Your task to perform on an android device: Show me productivity apps on the Play Store Image 0: 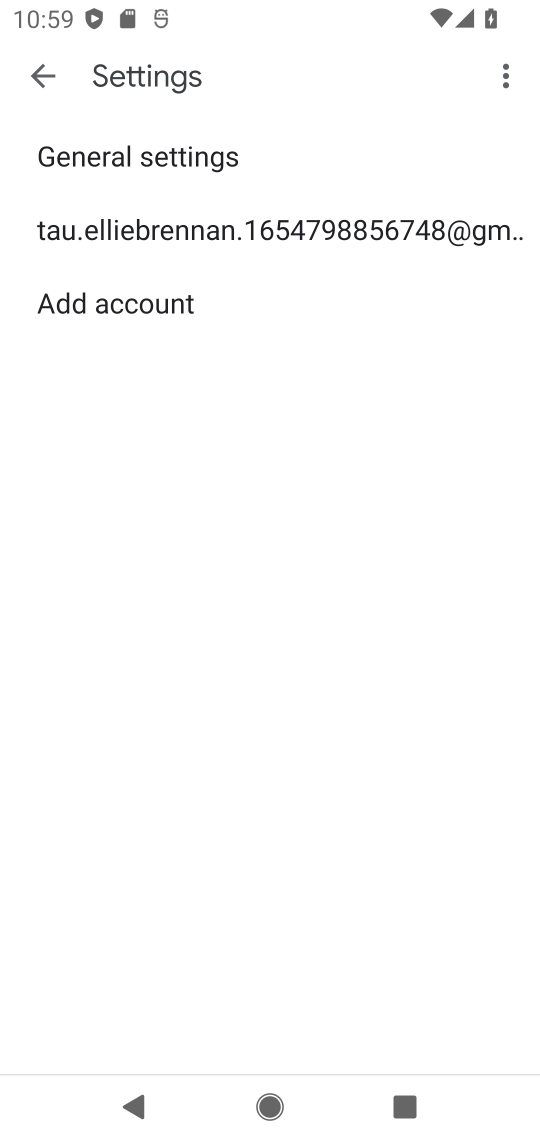
Step 0: press home button
Your task to perform on an android device: Show me productivity apps on the Play Store Image 1: 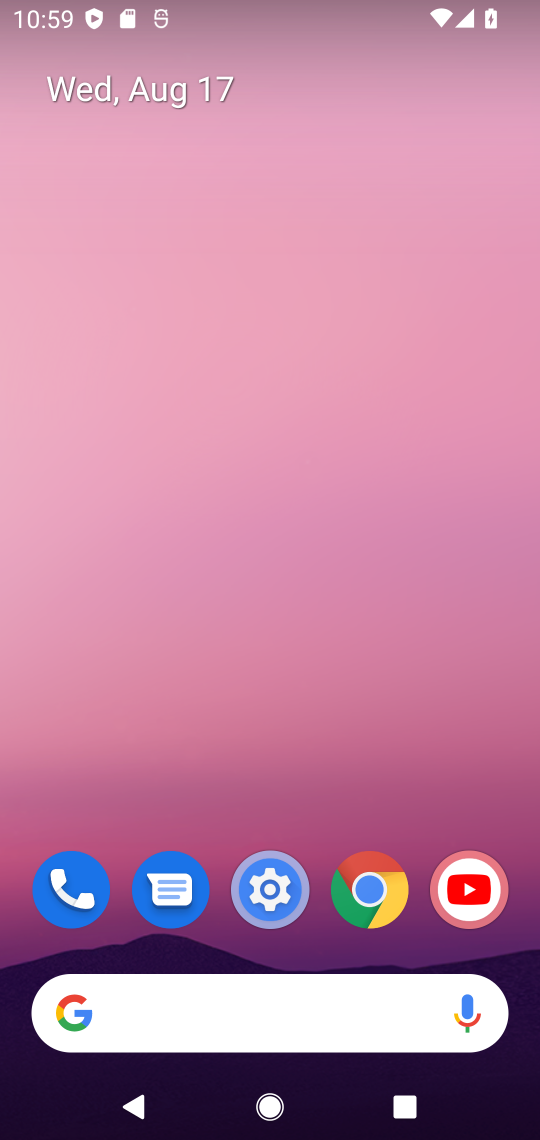
Step 1: drag from (321, 752) to (372, 2)
Your task to perform on an android device: Show me productivity apps on the Play Store Image 2: 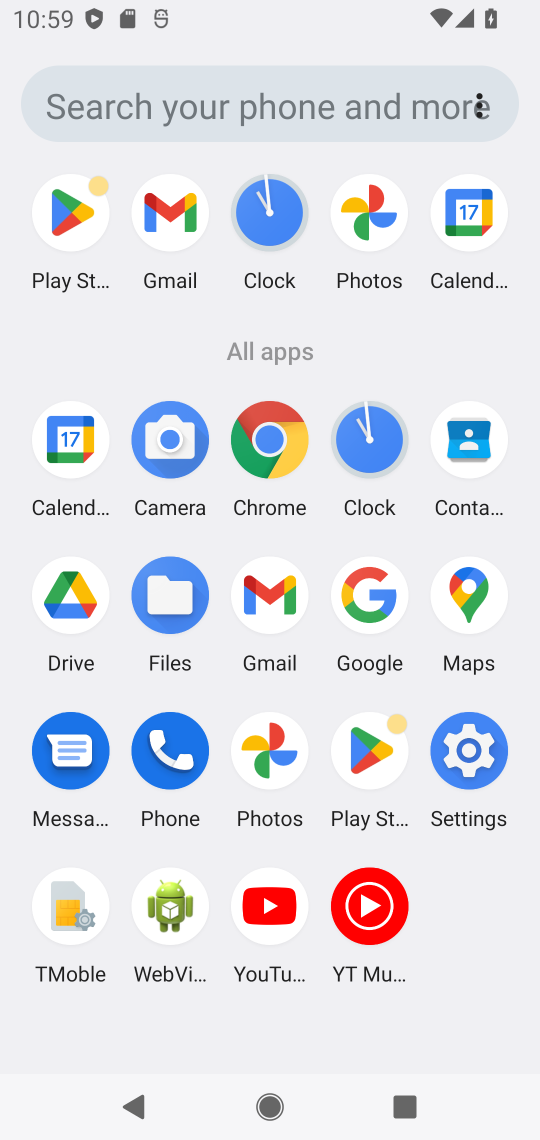
Step 2: click (361, 743)
Your task to perform on an android device: Show me productivity apps on the Play Store Image 3: 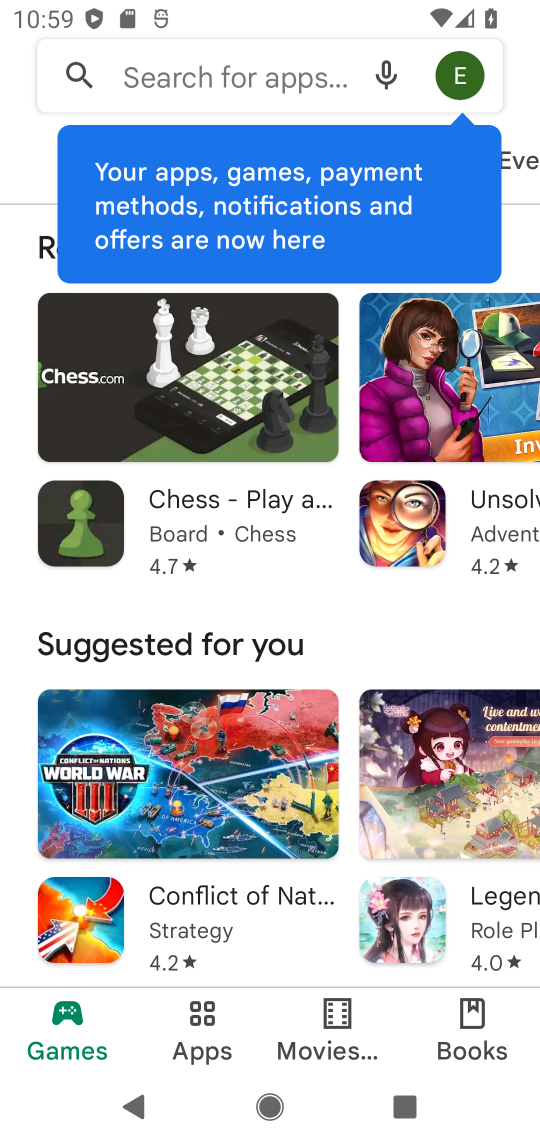
Step 3: click (195, 1019)
Your task to perform on an android device: Show me productivity apps on the Play Store Image 4: 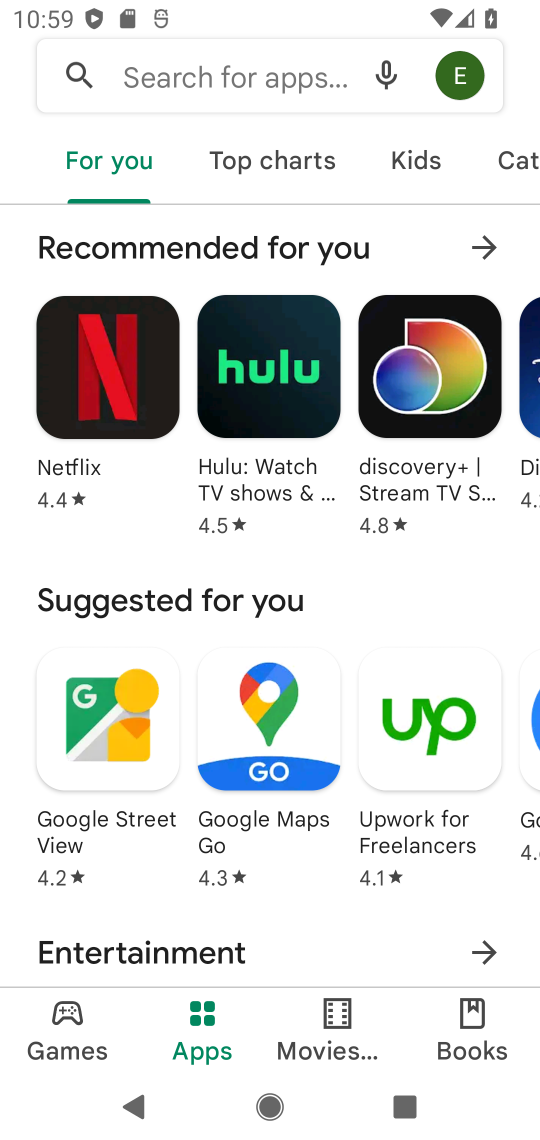
Step 4: click (516, 160)
Your task to perform on an android device: Show me productivity apps on the Play Store Image 5: 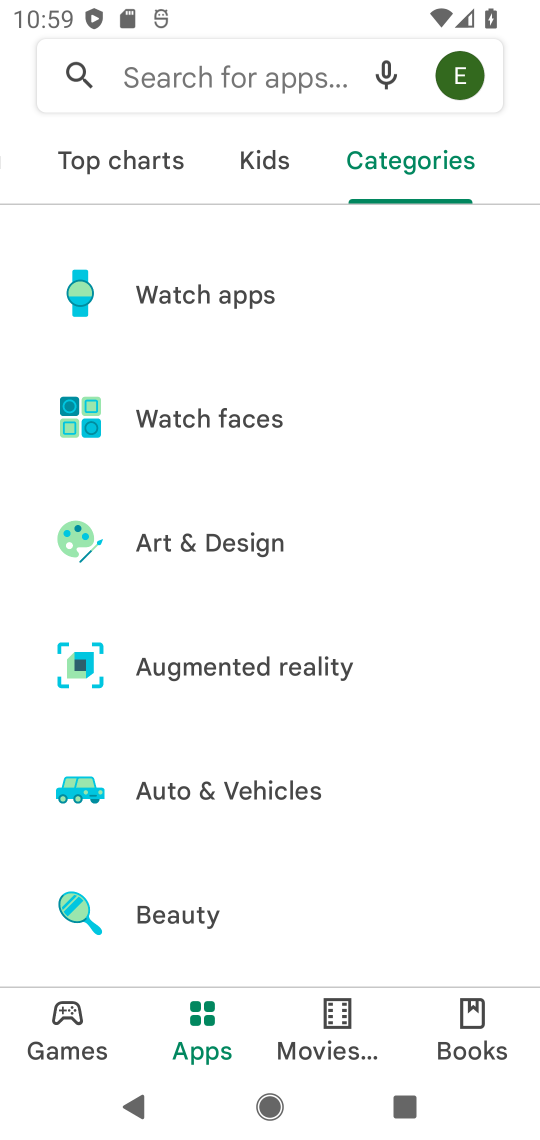
Step 5: drag from (317, 837) to (372, 5)
Your task to perform on an android device: Show me productivity apps on the Play Store Image 6: 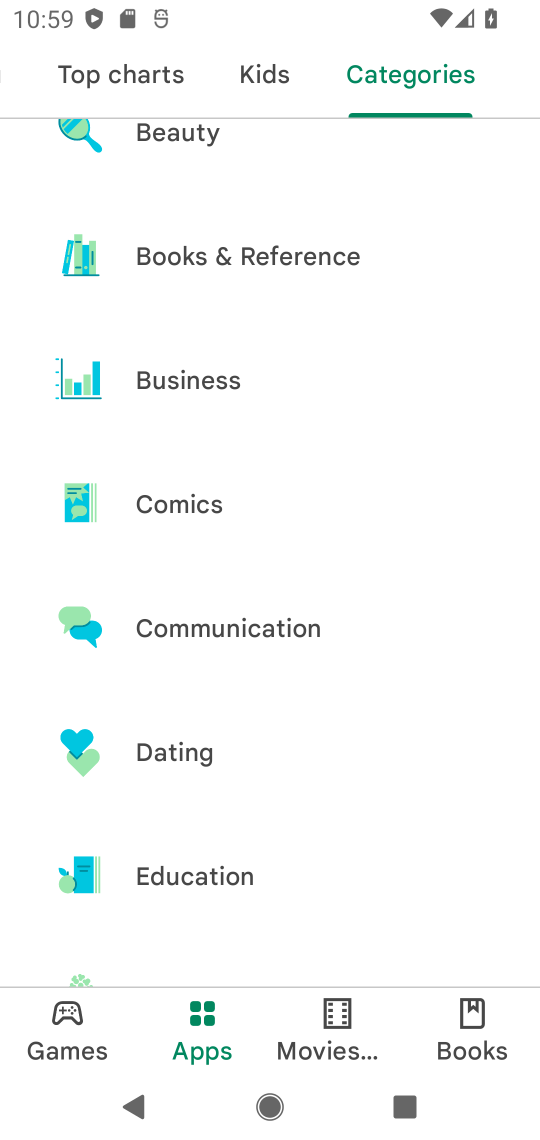
Step 6: drag from (335, 804) to (371, 2)
Your task to perform on an android device: Show me productivity apps on the Play Store Image 7: 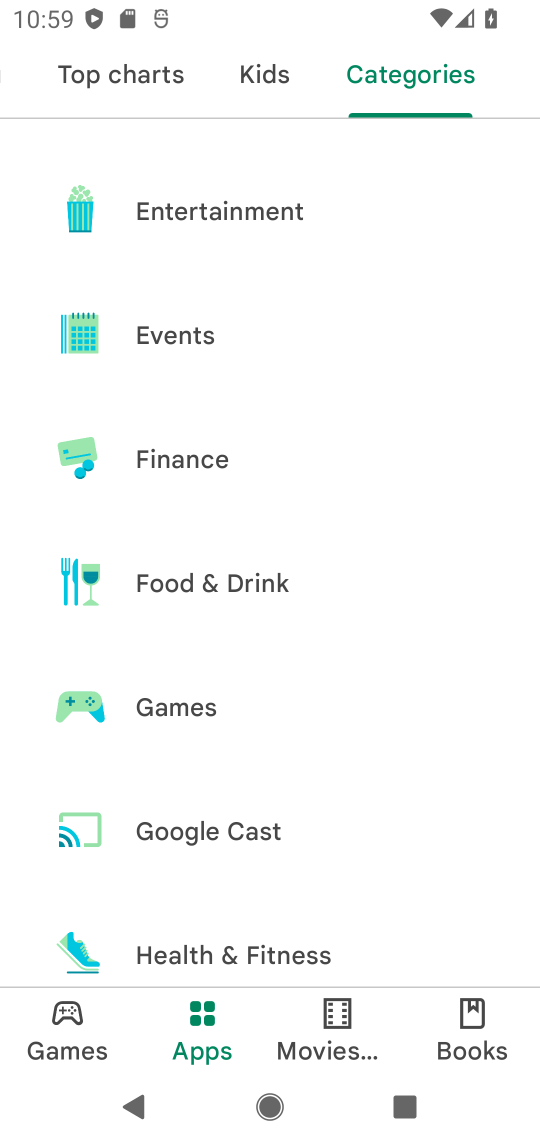
Step 7: drag from (339, 909) to (355, 1)
Your task to perform on an android device: Show me productivity apps on the Play Store Image 8: 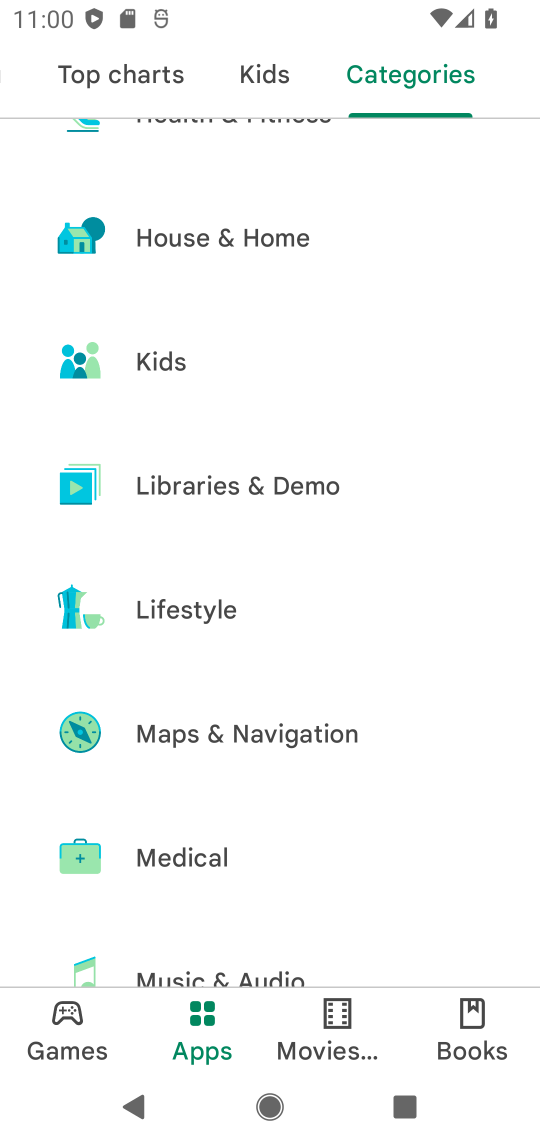
Step 8: drag from (286, 901) to (325, 1)
Your task to perform on an android device: Show me productivity apps on the Play Store Image 9: 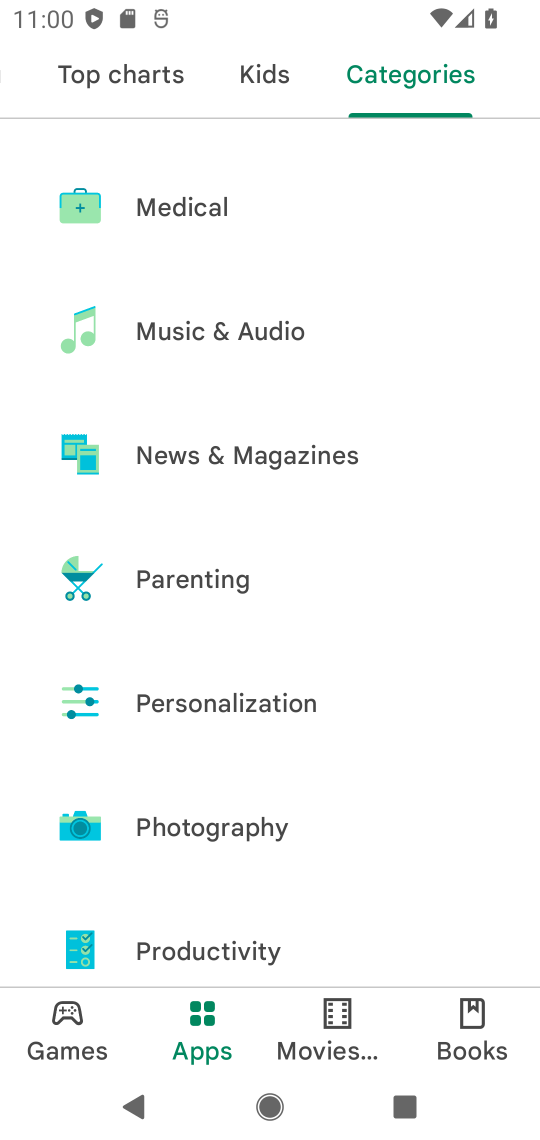
Step 9: click (273, 951)
Your task to perform on an android device: Show me productivity apps on the Play Store Image 10: 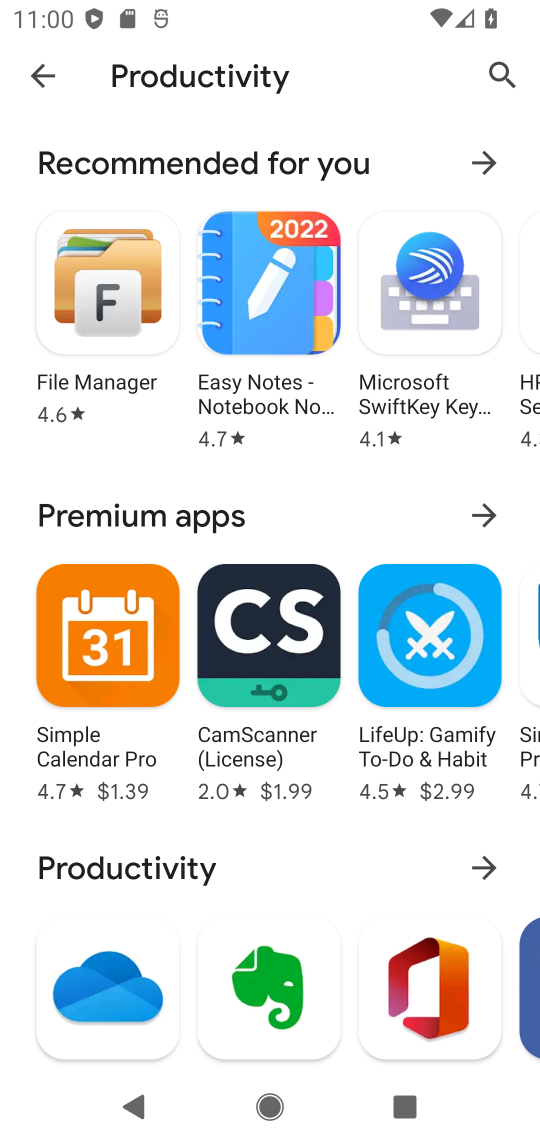
Step 10: click (477, 860)
Your task to perform on an android device: Show me productivity apps on the Play Store Image 11: 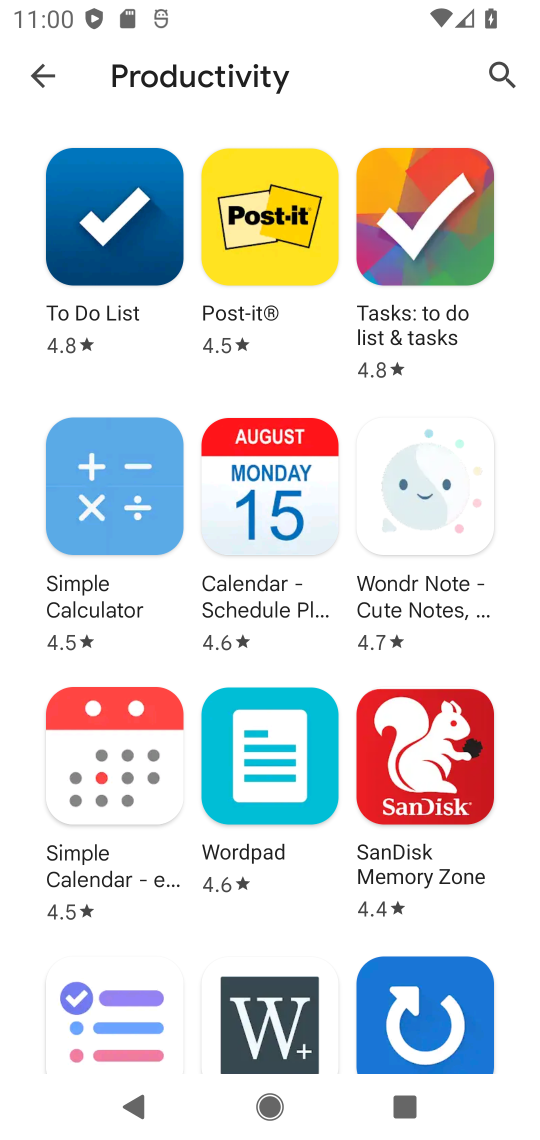
Step 11: task complete